Your task to perform on an android device: turn on airplane mode Image 0: 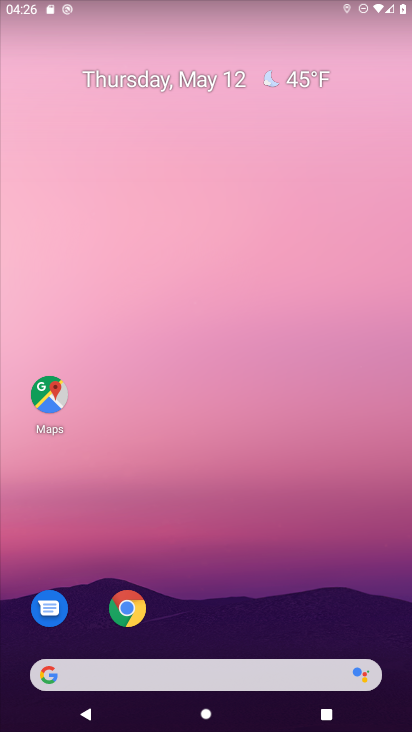
Step 0: drag from (318, 590) to (230, 173)
Your task to perform on an android device: turn on airplane mode Image 1: 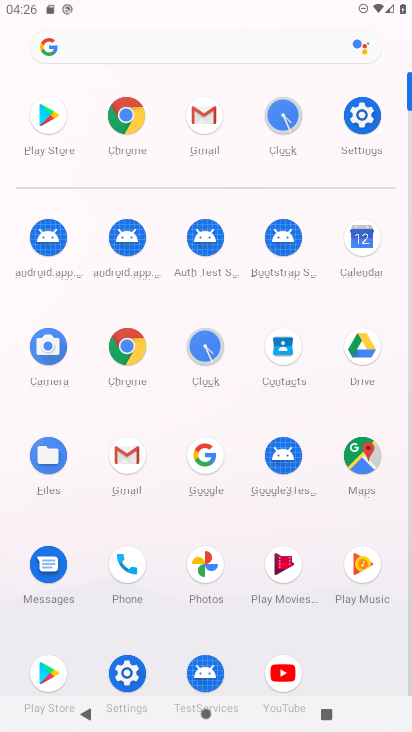
Step 1: click (352, 107)
Your task to perform on an android device: turn on airplane mode Image 2: 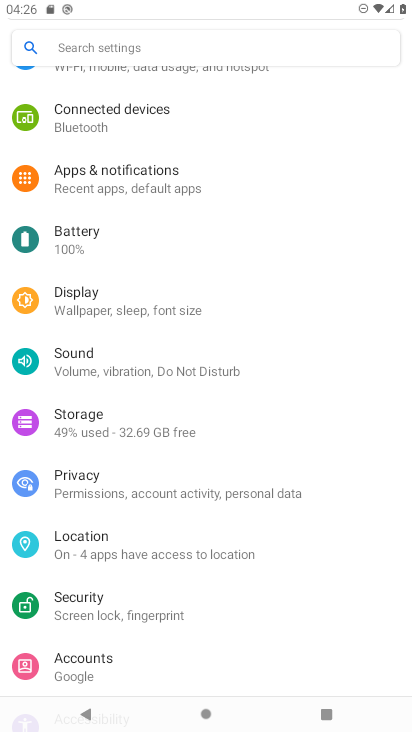
Step 2: drag from (138, 198) to (151, 418)
Your task to perform on an android device: turn on airplane mode Image 3: 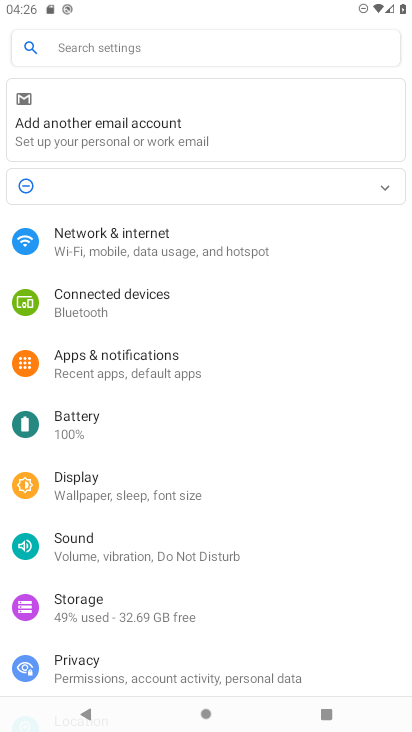
Step 3: click (120, 252)
Your task to perform on an android device: turn on airplane mode Image 4: 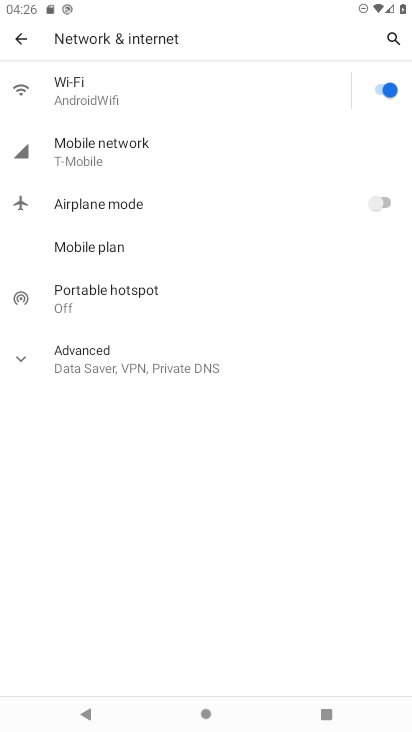
Step 4: click (391, 204)
Your task to perform on an android device: turn on airplane mode Image 5: 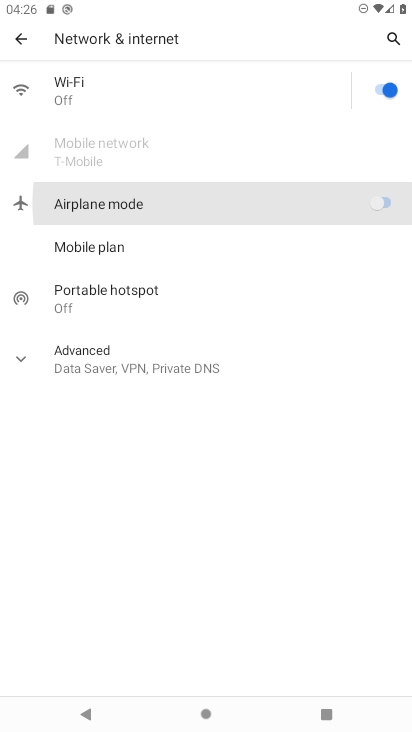
Step 5: click (391, 204)
Your task to perform on an android device: turn on airplane mode Image 6: 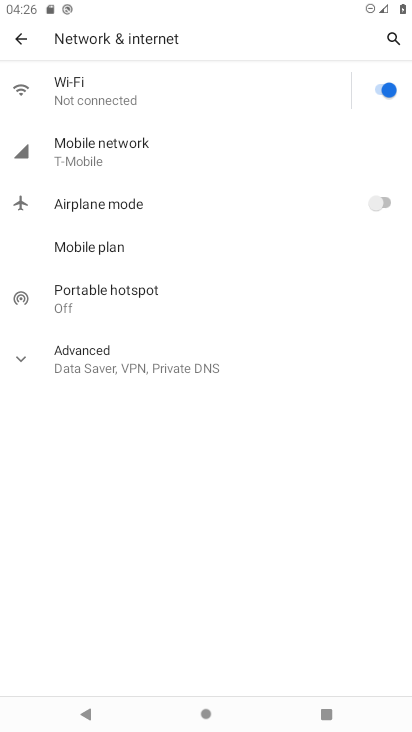
Step 6: click (378, 93)
Your task to perform on an android device: turn on airplane mode Image 7: 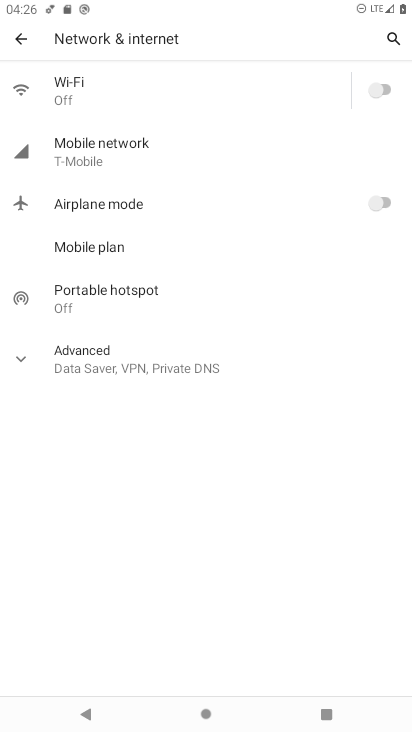
Step 7: click (373, 90)
Your task to perform on an android device: turn on airplane mode Image 8: 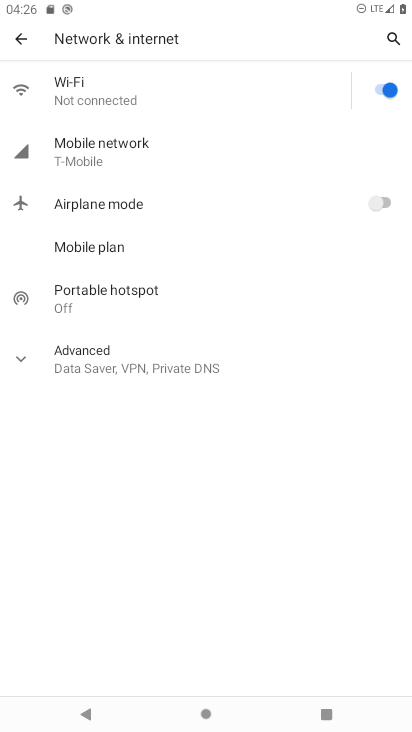
Step 8: task complete